Your task to perform on an android device: What is the recent news? Image 0: 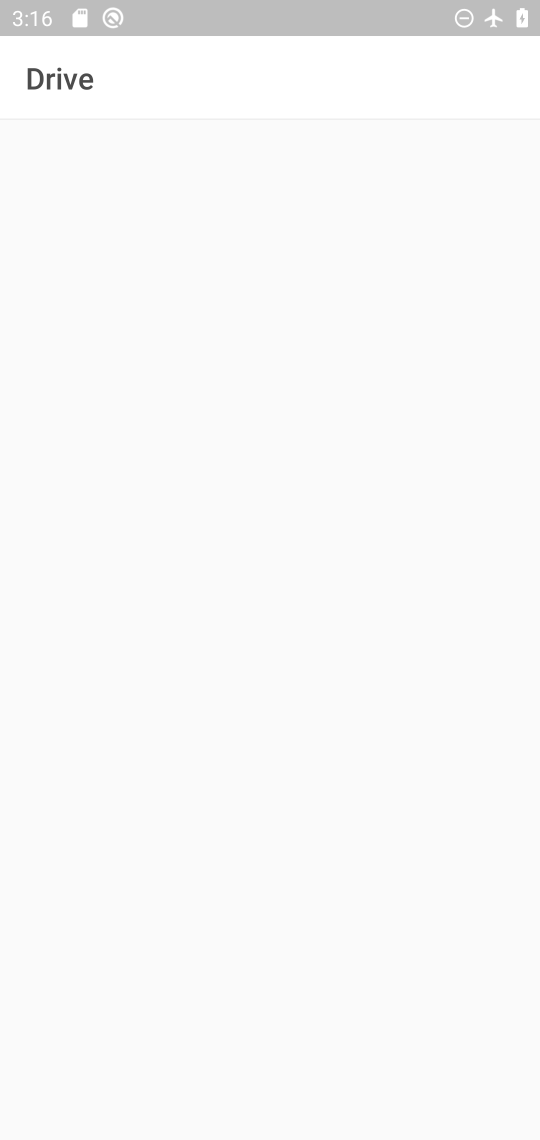
Step 0: press home button
Your task to perform on an android device: What is the recent news? Image 1: 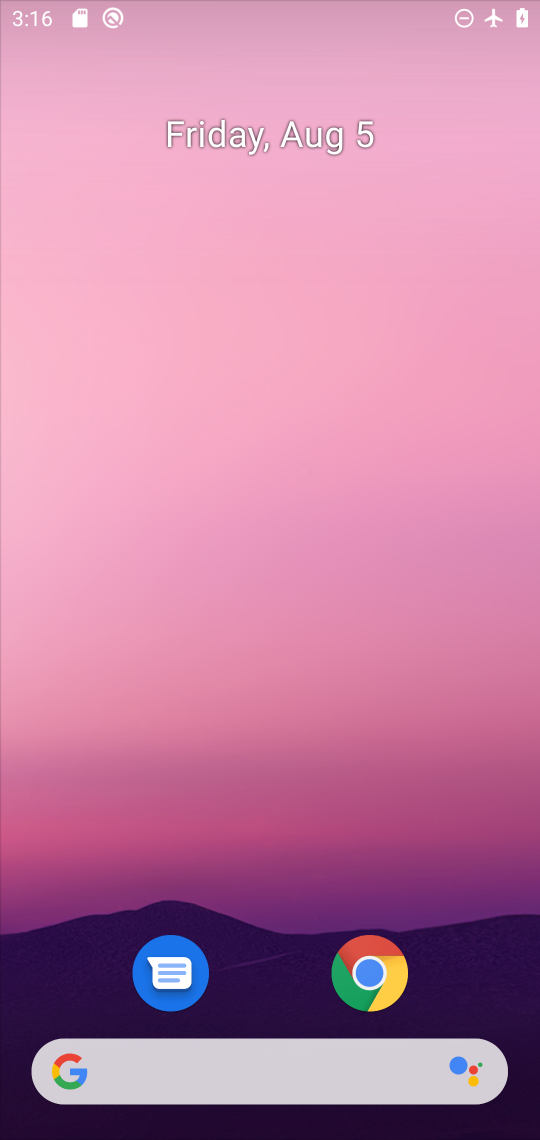
Step 1: click (238, 1038)
Your task to perform on an android device: What is the recent news? Image 2: 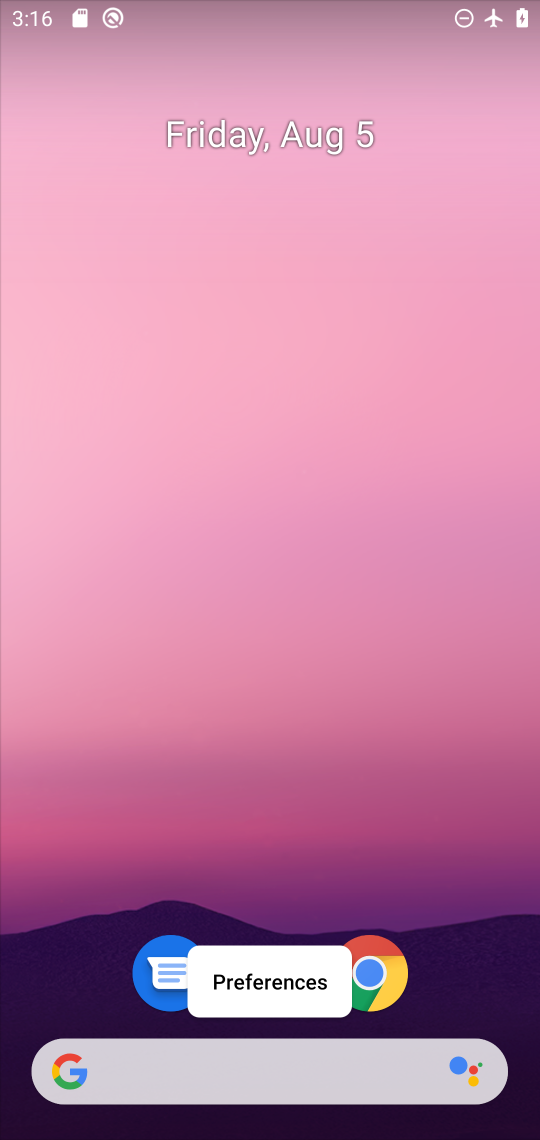
Step 2: click (239, 1064)
Your task to perform on an android device: What is the recent news? Image 3: 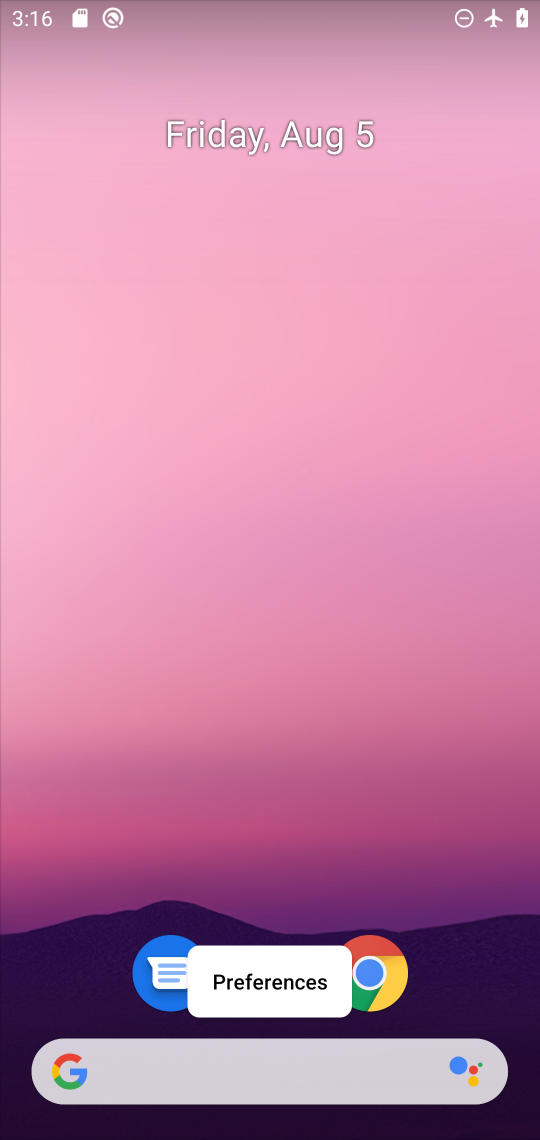
Step 3: click (231, 1078)
Your task to perform on an android device: What is the recent news? Image 4: 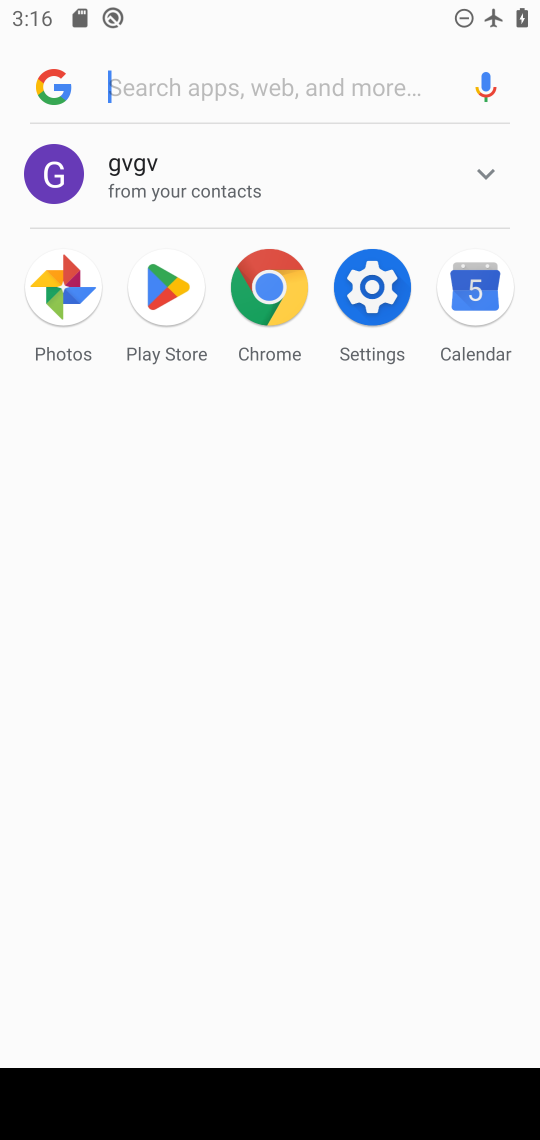
Step 4: type "ecent news?"
Your task to perform on an android device: What is the recent news? Image 5: 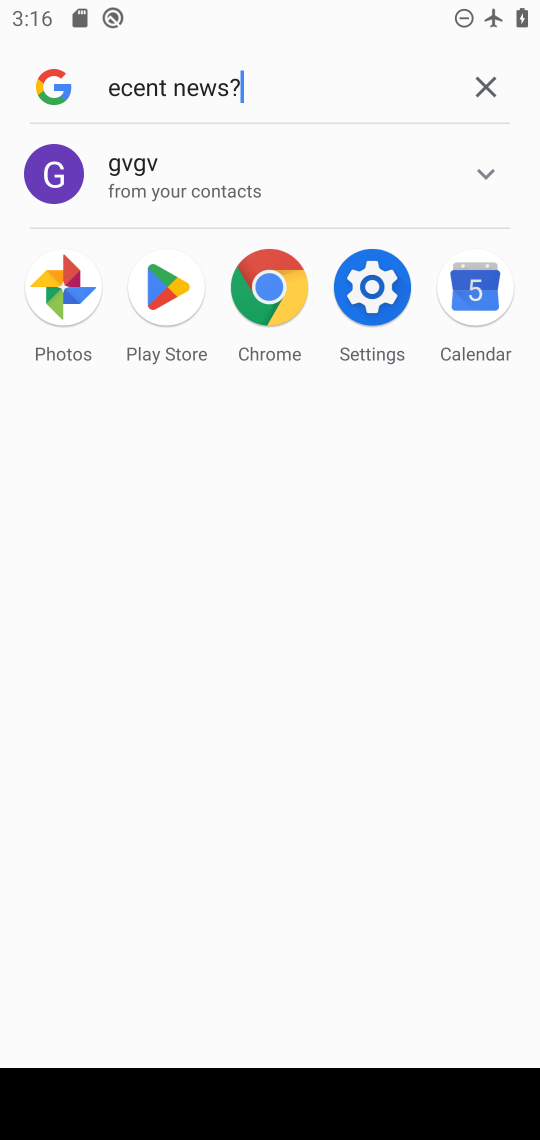
Step 5: type ""
Your task to perform on an android device: What is the recent news? Image 6: 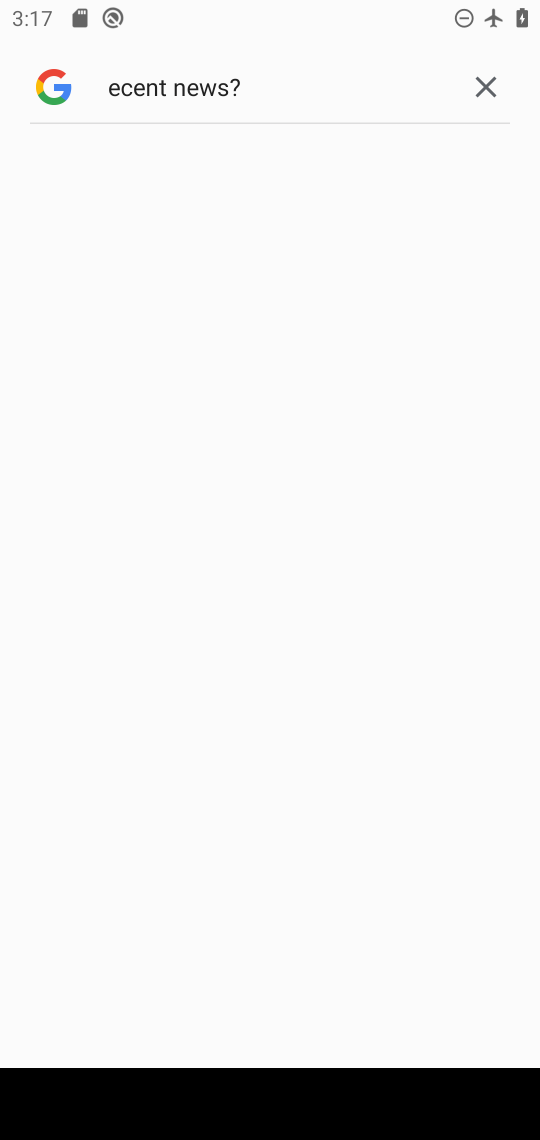
Step 6: task complete